Your task to perform on an android device: empty trash in google photos Image 0: 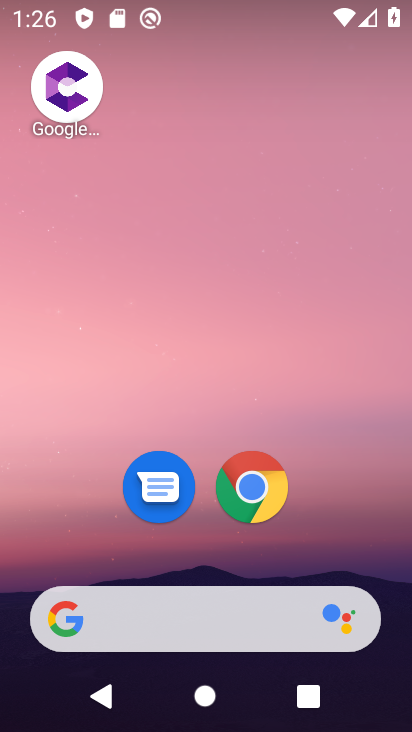
Step 0: drag from (211, 579) to (254, 28)
Your task to perform on an android device: empty trash in google photos Image 1: 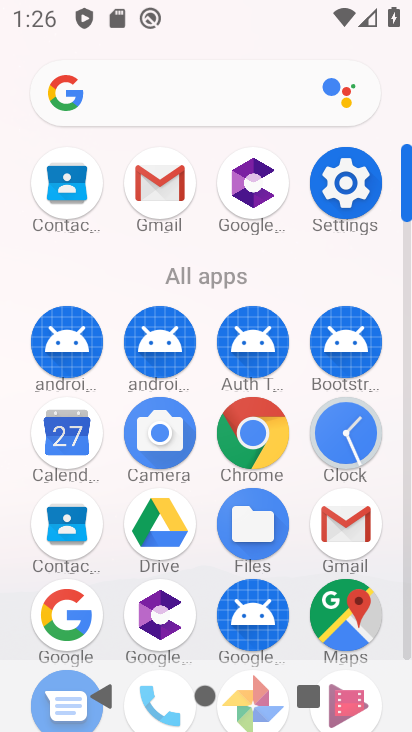
Step 1: drag from (203, 628) to (255, 141)
Your task to perform on an android device: empty trash in google photos Image 2: 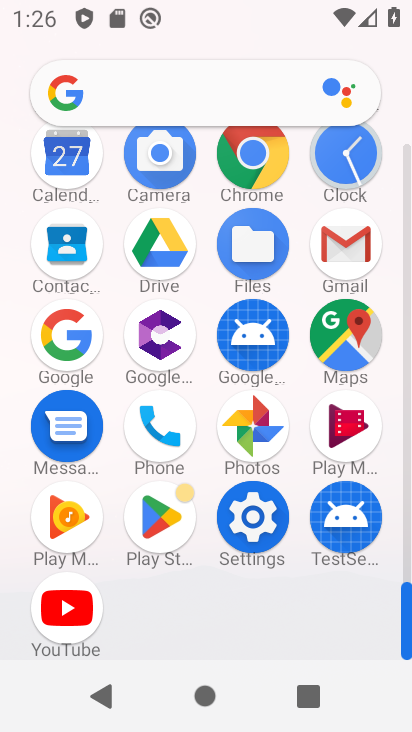
Step 2: click (252, 419)
Your task to perform on an android device: empty trash in google photos Image 3: 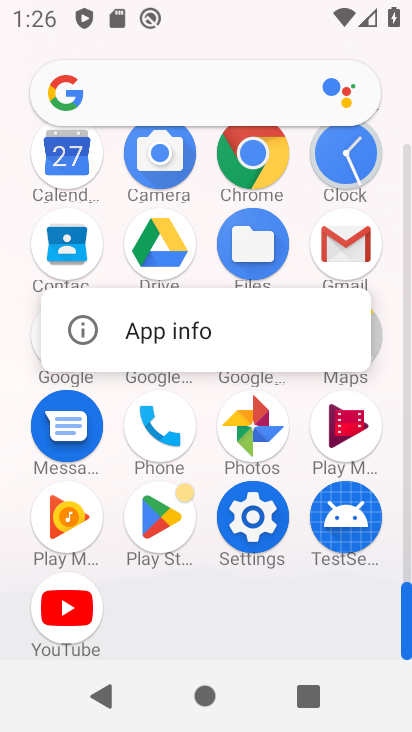
Step 3: click (256, 422)
Your task to perform on an android device: empty trash in google photos Image 4: 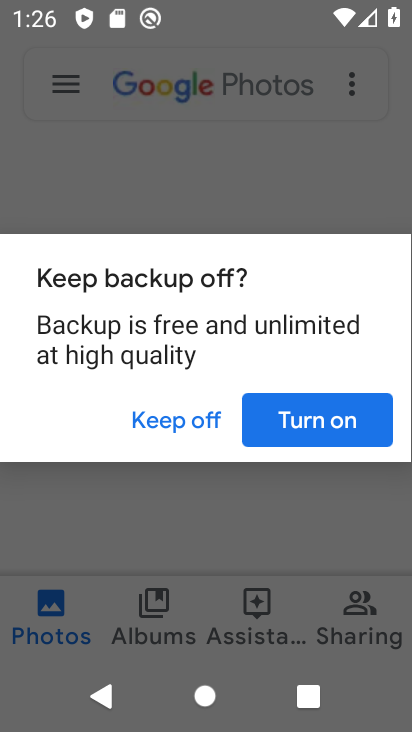
Step 4: click (159, 424)
Your task to perform on an android device: empty trash in google photos Image 5: 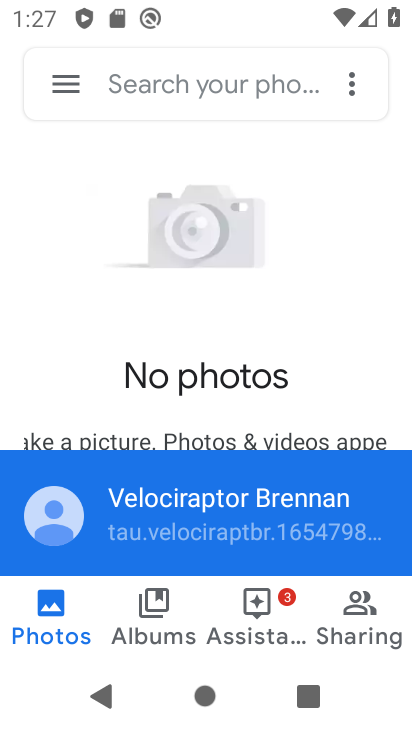
Step 5: click (55, 87)
Your task to perform on an android device: empty trash in google photos Image 6: 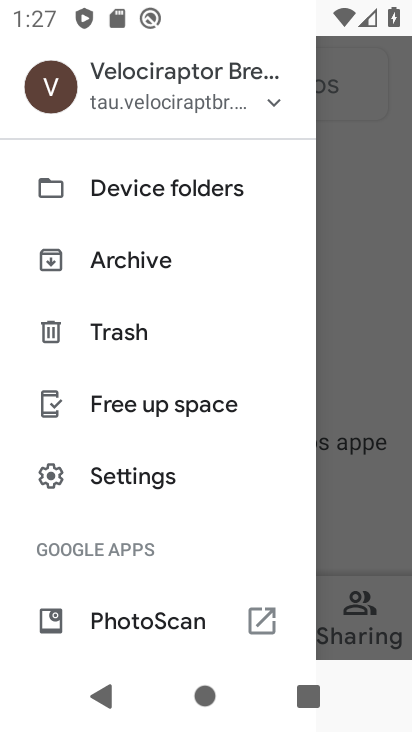
Step 6: click (114, 340)
Your task to perform on an android device: empty trash in google photos Image 7: 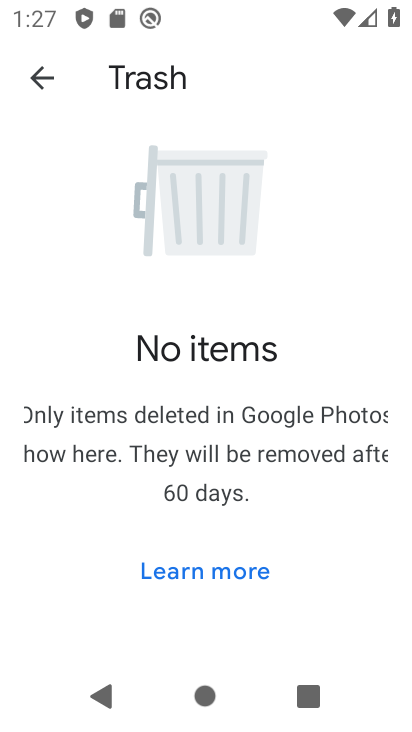
Step 7: task complete